Your task to perform on an android device: Go to internet settings Image 0: 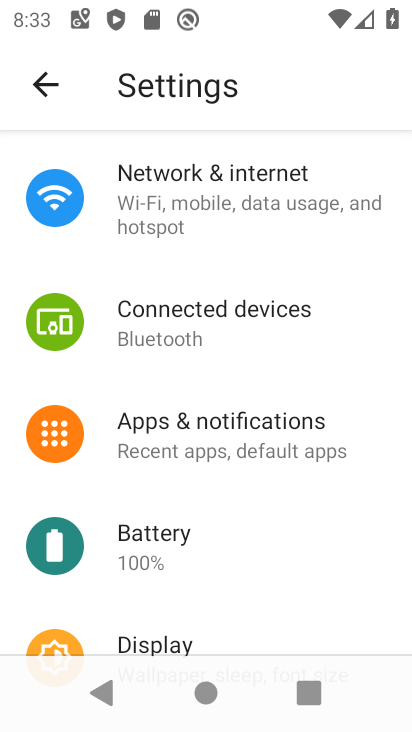
Step 0: press home button
Your task to perform on an android device: Go to internet settings Image 1: 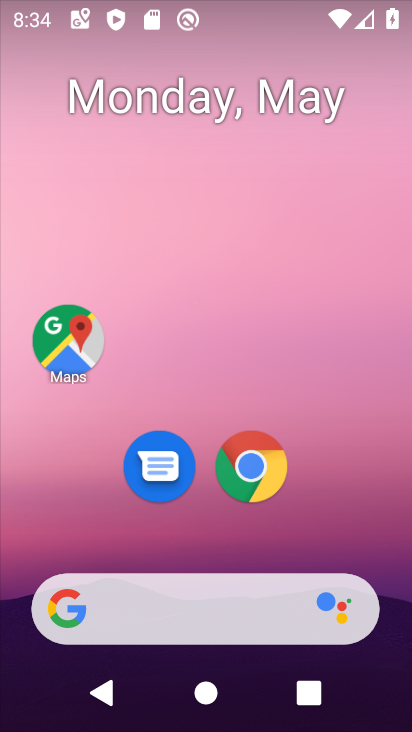
Step 1: drag from (256, 651) to (284, 20)
Your task to perform on an android device: Go to internet settings Image 2: 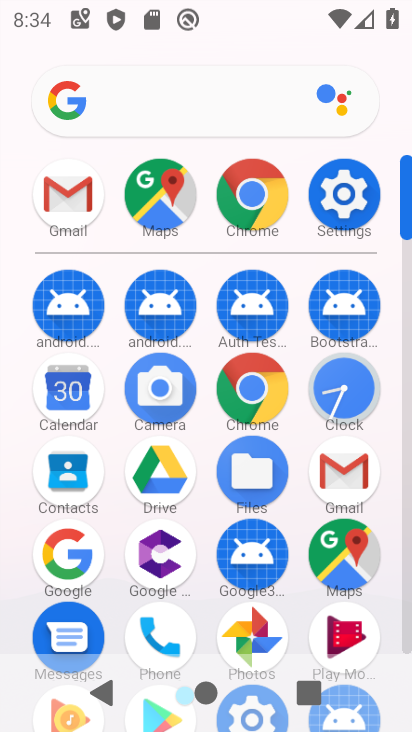
Step 2: click (335, 198)
Your task to perform on an android device: Go to internet settings Image 3: 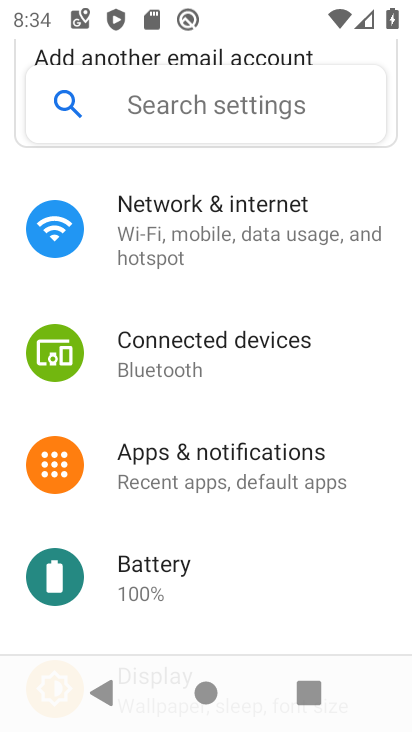
Step 3: click (242, 215)
Your task to perform on an android device: Go to internet settings Image 4: 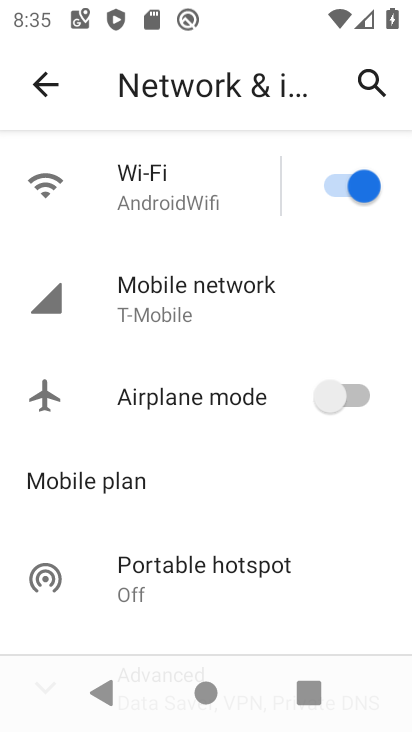
Step 4: task complete